Your task to perform on an android device: Google the capital of Canada Image 0: 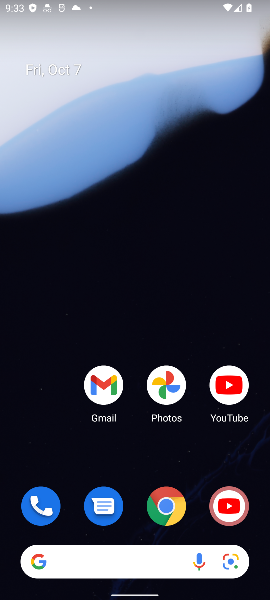
Step 0: click (163, 509)
Your task to perform on an android device: Google the capital of Canada Image 1: 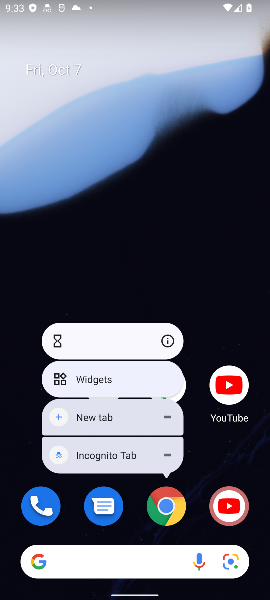
Step 1: click (169, 504)
Your task to perform on an android device: Google the capital of Canada Image 2: 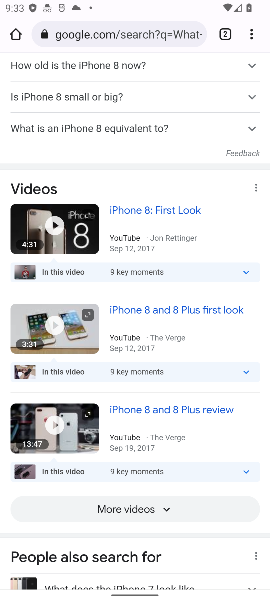
Step 2: click (177, 31)
Your task to perform on an android device: Google the capital of Canada Image 3: 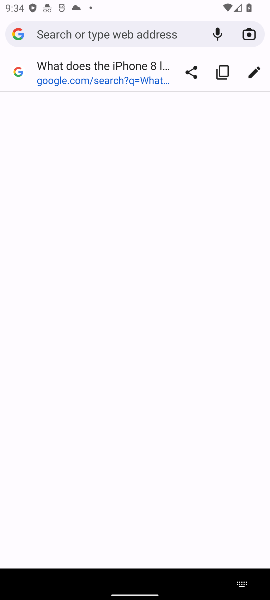
Step 3: type "capital of Canada"
Your task to perform on an android device: Google the capital of Canada Image 4: 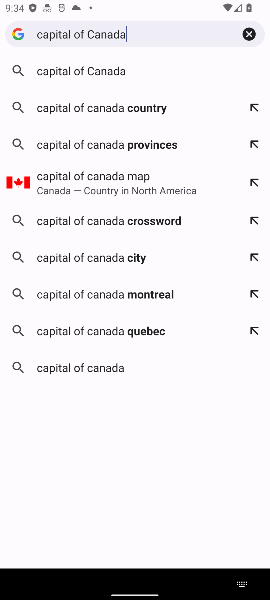
Step 4: click (105, 73)
Your task to perform on an android device: Google the capital of Canada Image 5: 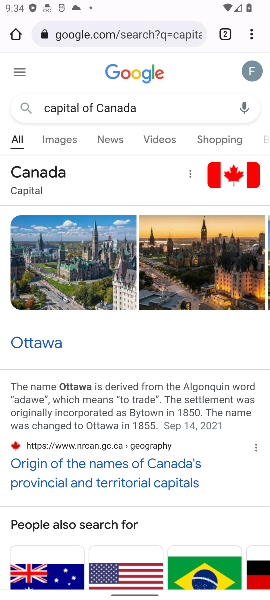
Step 5: task complete